Your task to perform on an android device: turn off translation in the chrome app Image 0: 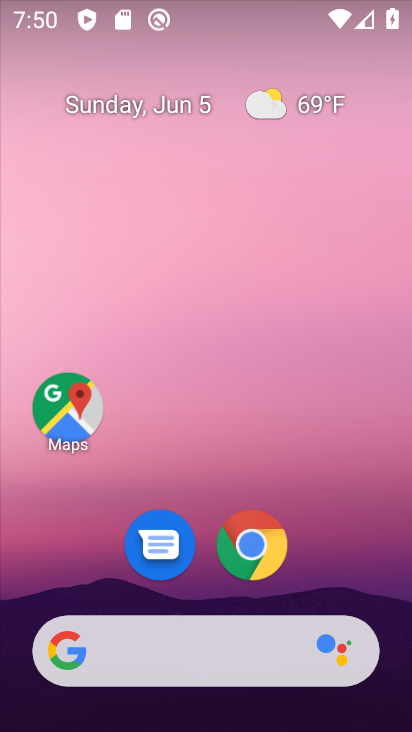
Step 0: drag from (363, 582) to (359, 207)
Your task to perform on an android device: turn off translation in the chrome app Image 1: 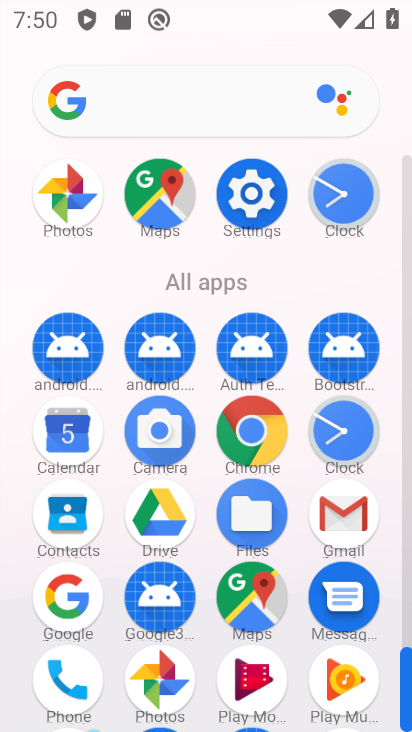
Step 1: click (274, 449)
Your task to perform on an android device: turn off translation in the chrome app Image 2: 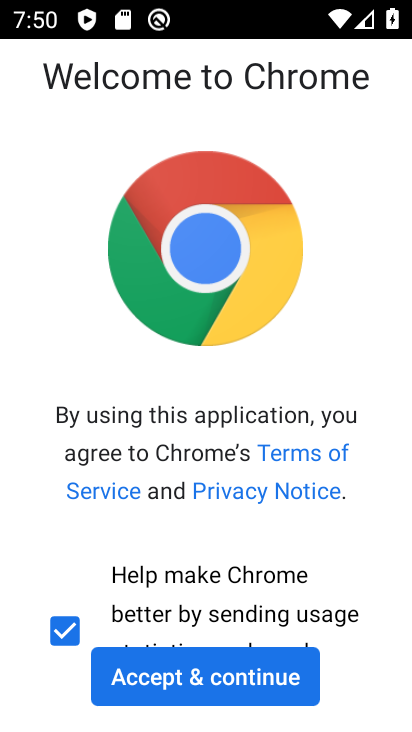
Step 2: click (211, 670)
Your task to perform on an android device: turn off translation in the chrome app Image 3: 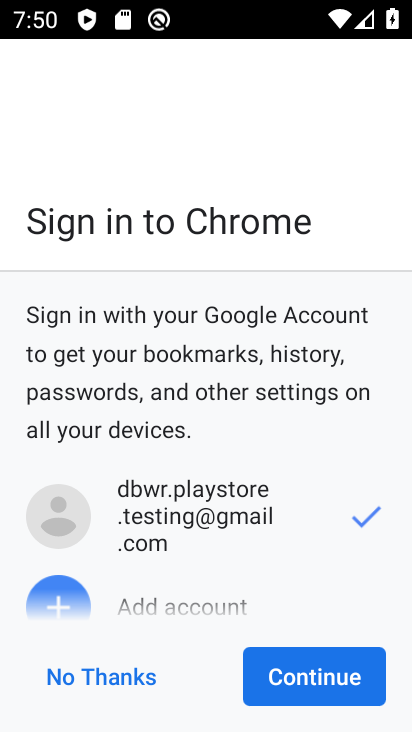
Step 3: click (264, 679)
Your task to perform on an android device: turn off translation in the chrome app Image 4: 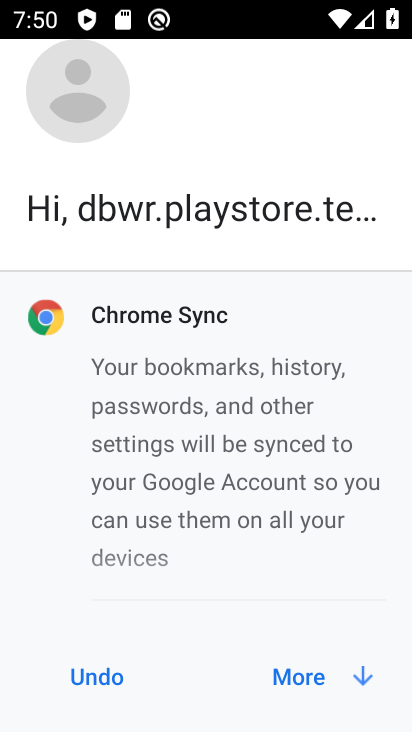
Step 4: click (288, 683)
Your task to perform on an android device: turn off translation in the chrome app Image 5: 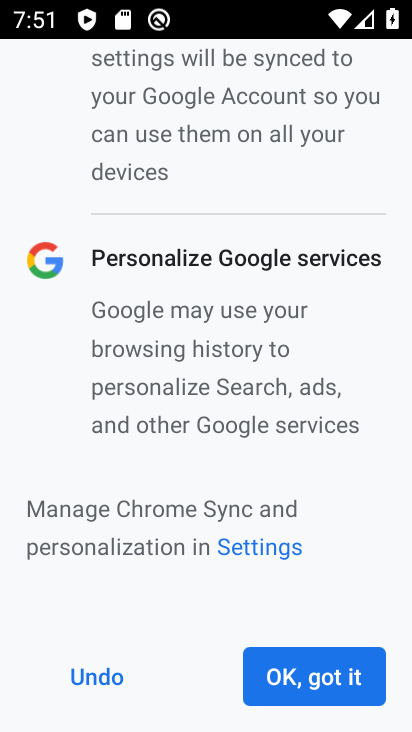
Step 5: click (310, 683)
Your task to perform on an android device: turn off translation in the chrome app Image 6: 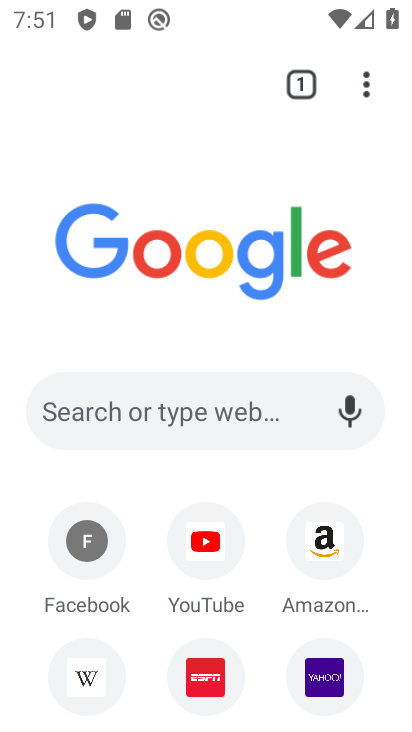
Step 6: click (362, 91)
Your task to perform on an android device: turn off translation in the chrome app Image 7: 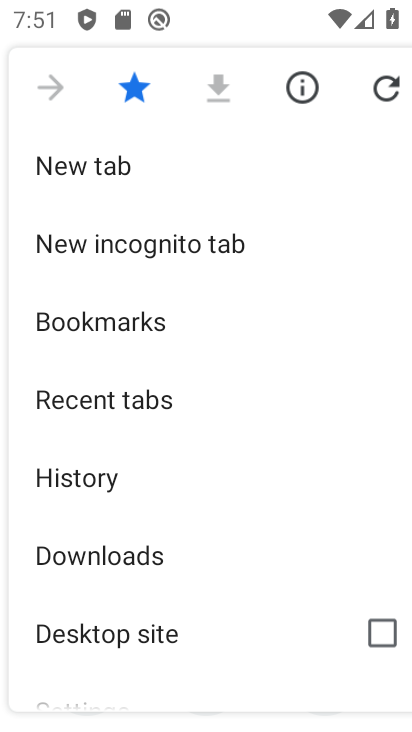
Step 7: drag from (281, 485) to (289, 389)
Your task to perform on an android device: turn off translation in the chrome app Image 8: 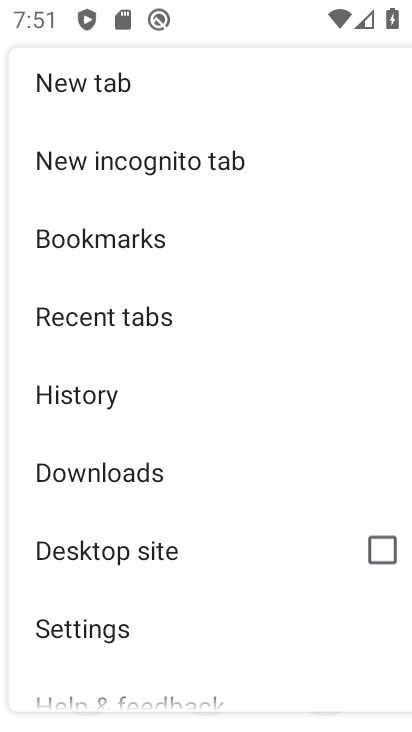
Step 8: drag from (288, 470) to (293, 386)
Your task to perform on an android device: turn off translation in the chrome app Image 9: 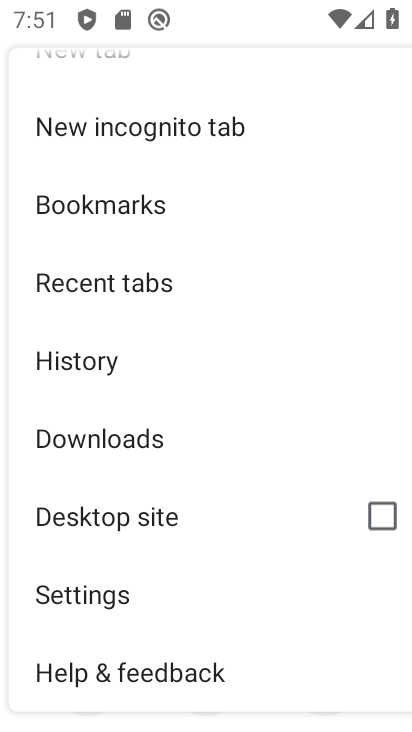
Step 9: drag from (286, 453) to (293, 301)
Your task to perform on an android device: turn off translation in the chrome app Image 10: 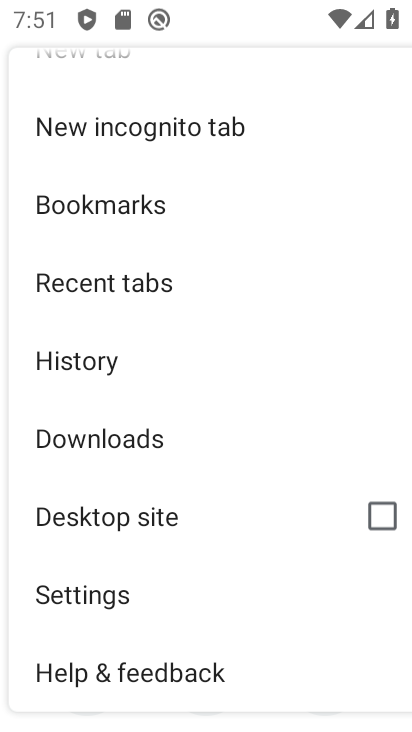
Step 10: click (171, 610)
Your task to perform on an android device: turn off translation in the chrome app Image 11: 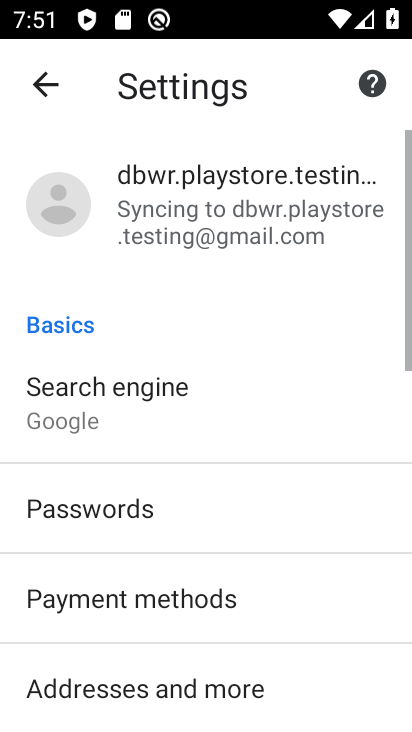
Step 11: drag from (334, 557) to (336, 452)
Your task to perform on an android device: turn off translation in the chrome app Image 12: 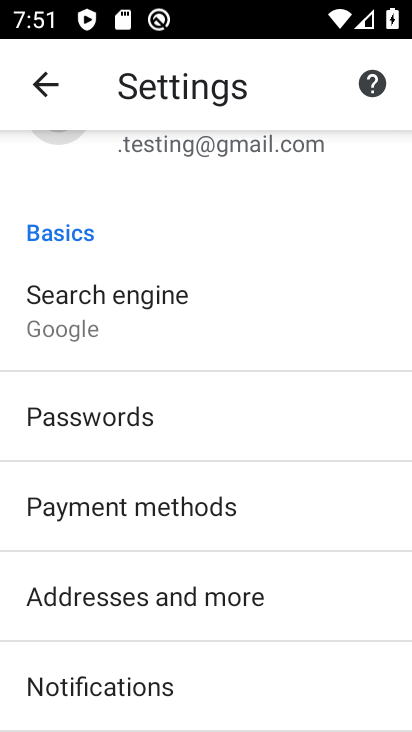
Step 12: drag from (336, 544) to (338, 475)
Your task to perform on an android device: turn off translation in the chrome app Image 13: 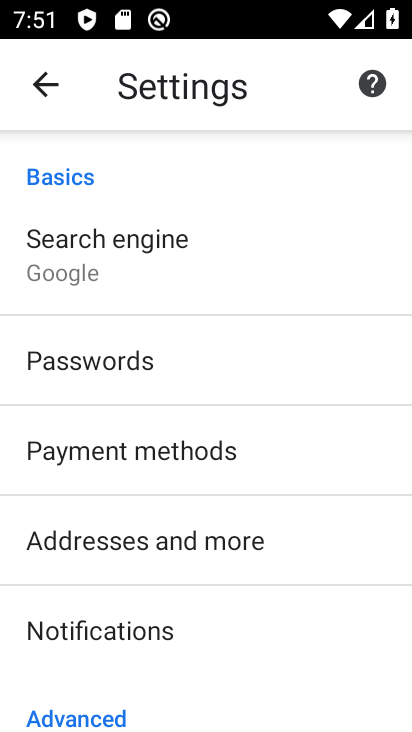
Step 13: drag from (338, 535) to (344, 417)
Your task to perform on an android device: turn off translation in the chrome app Image 14: 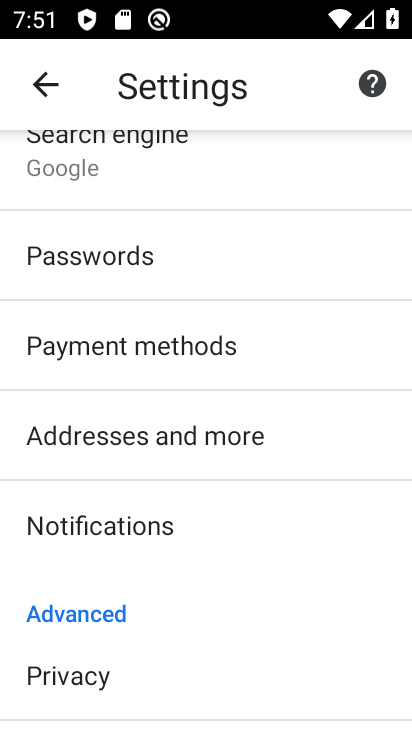
Step 14: drag from (358, 511) to (360, 399)
Your task to perform on an android device: turn off translation in the chrome app Image 15: 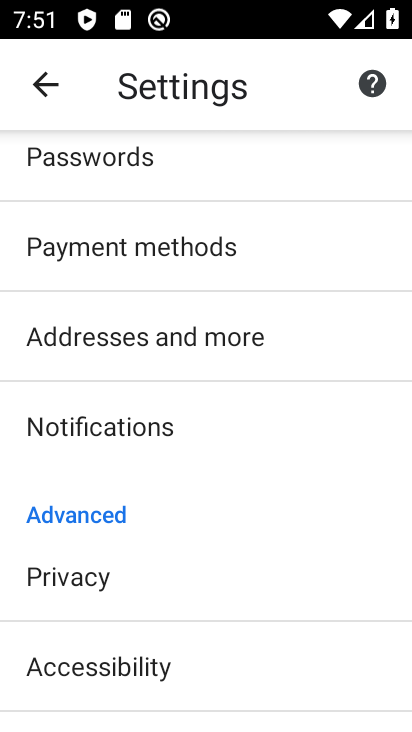
Step 15: drag from (345, 503) to (348, 401)
Your task to perform on an android device: turn off translation in the chrome app Image 16: 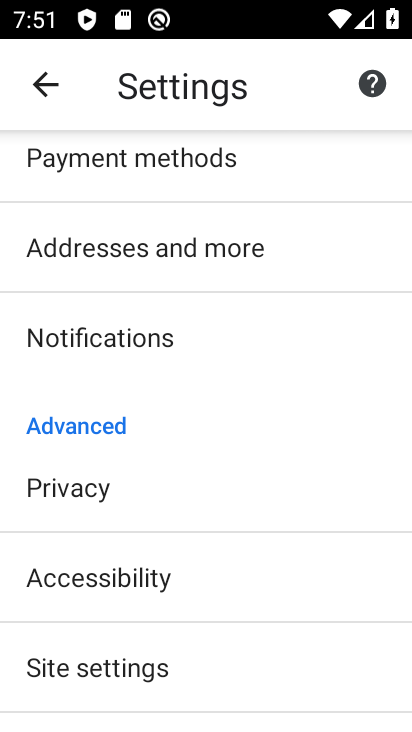
Step 16: drag from (337, 518) to (347, 399)
Your task to perform on an android device: turn off translation in the chrome app Image 17: 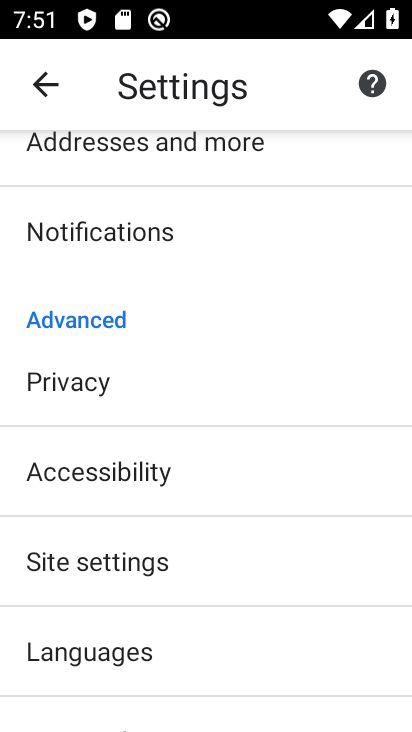
Step 17: drag from (343, 504) to (348, 381)
Your task to perform on an android device: turn off translation in the chrome app Image 18: 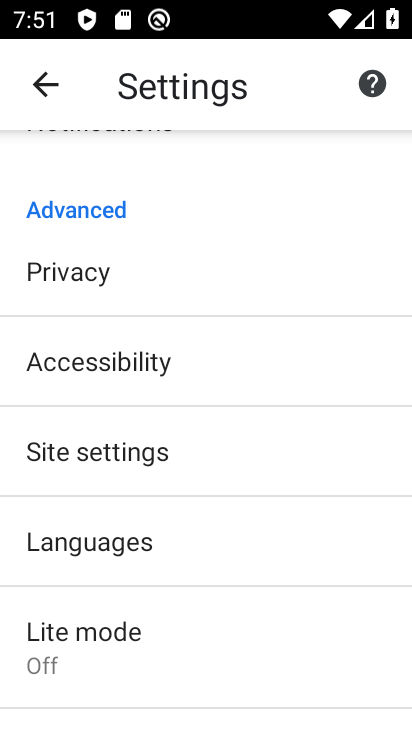
Step 18: drag from (333, 565) to (337, 355)
Your task to perform on an android device: turn off translation in the chrome app Image 19: 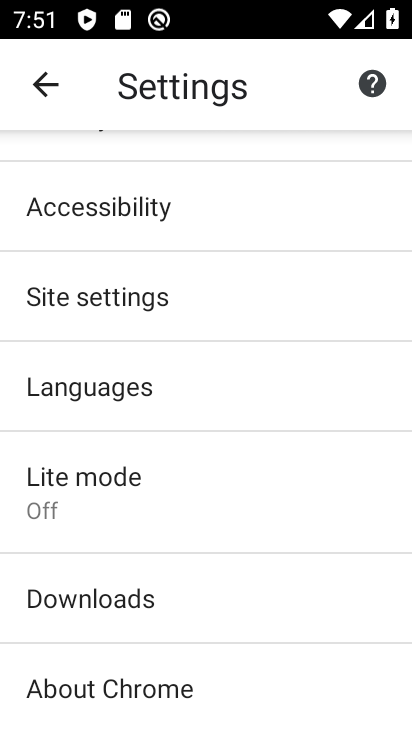
Step 19: click (272, 396)
Your task to perform on an android device: turn off translation in the chrome app Image 20: 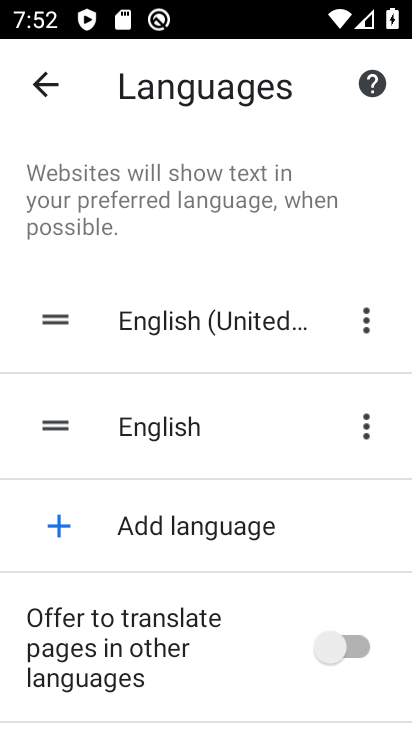
Step 20: task complete